Your task to perform on an android device: Open notification settings Image 0: 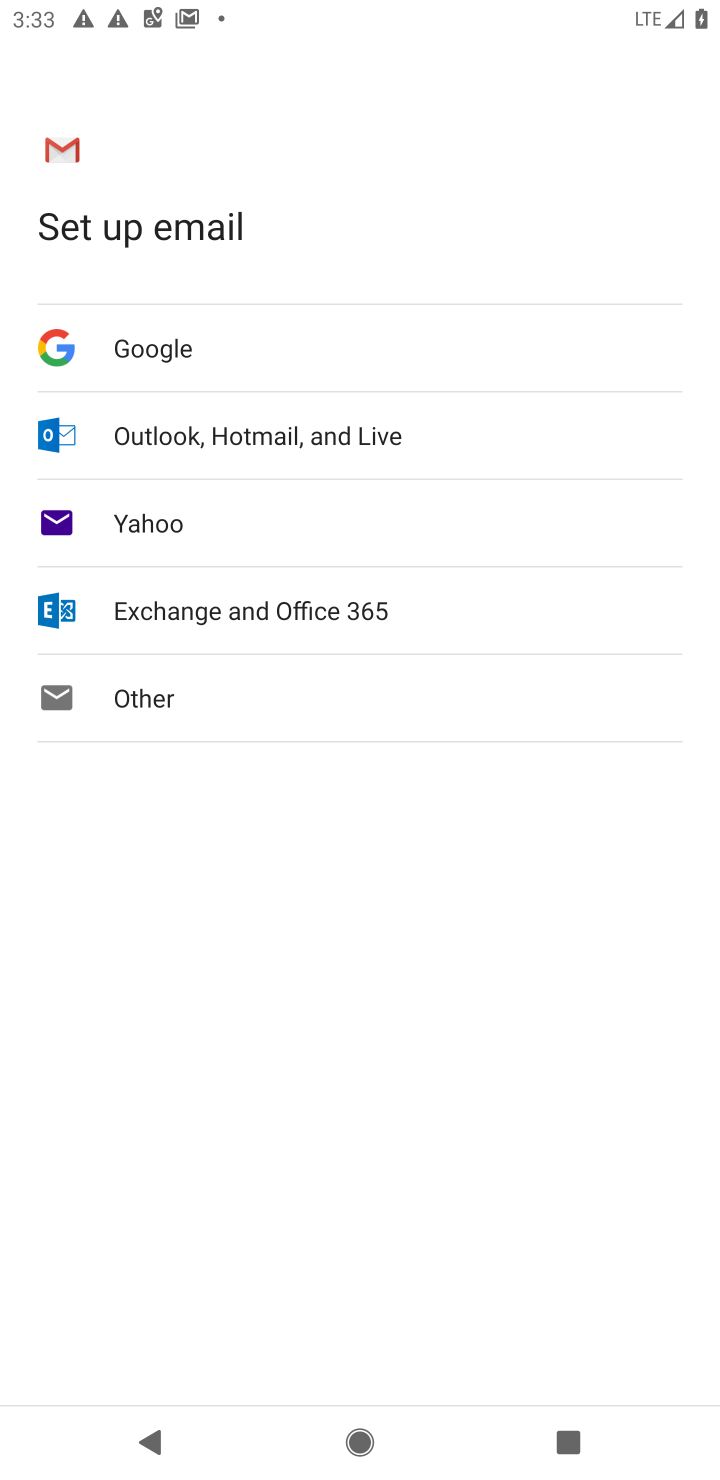
Step 0: press home button
Your task to perform on an android device: Open notification settings Image 1: 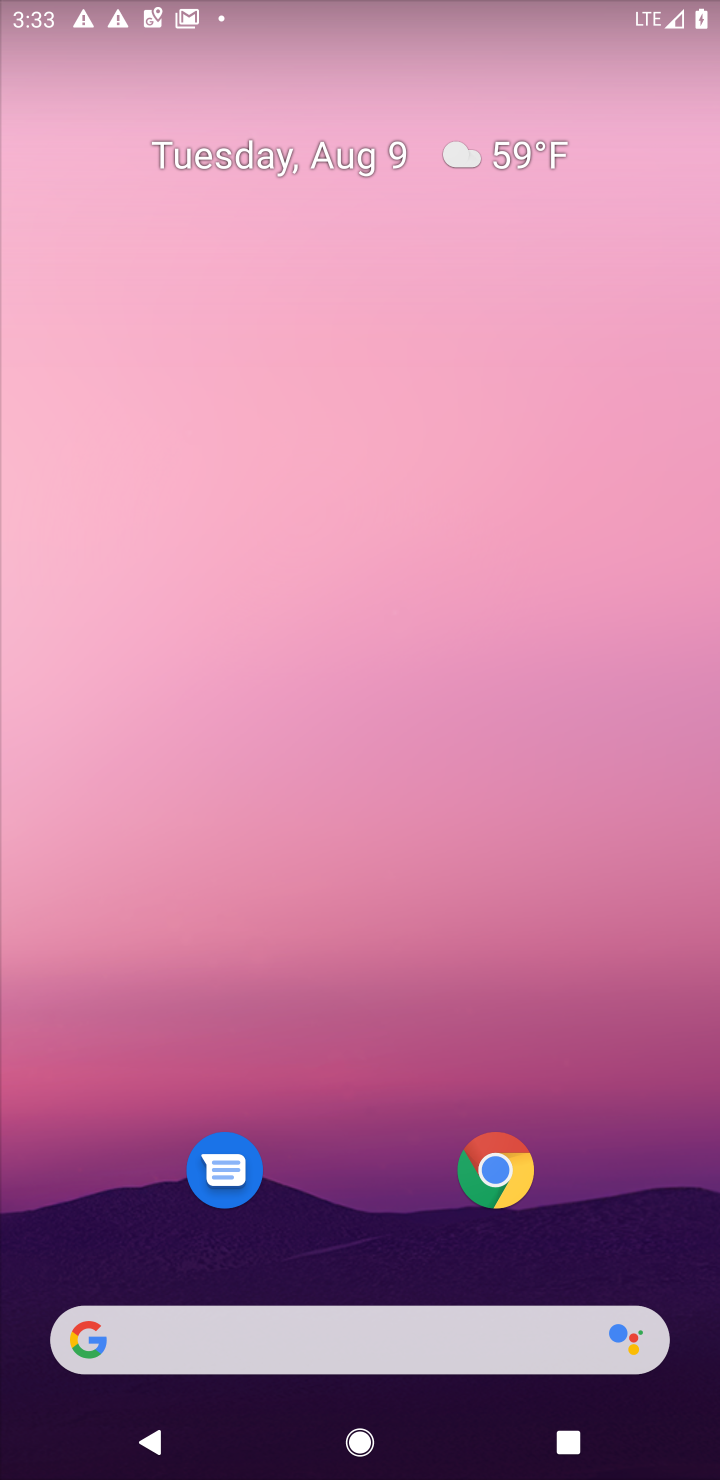
Step 1: drag from (341, 1075) to (293, 1)
Your task to perform on an android device: Open notification settings Image 2: 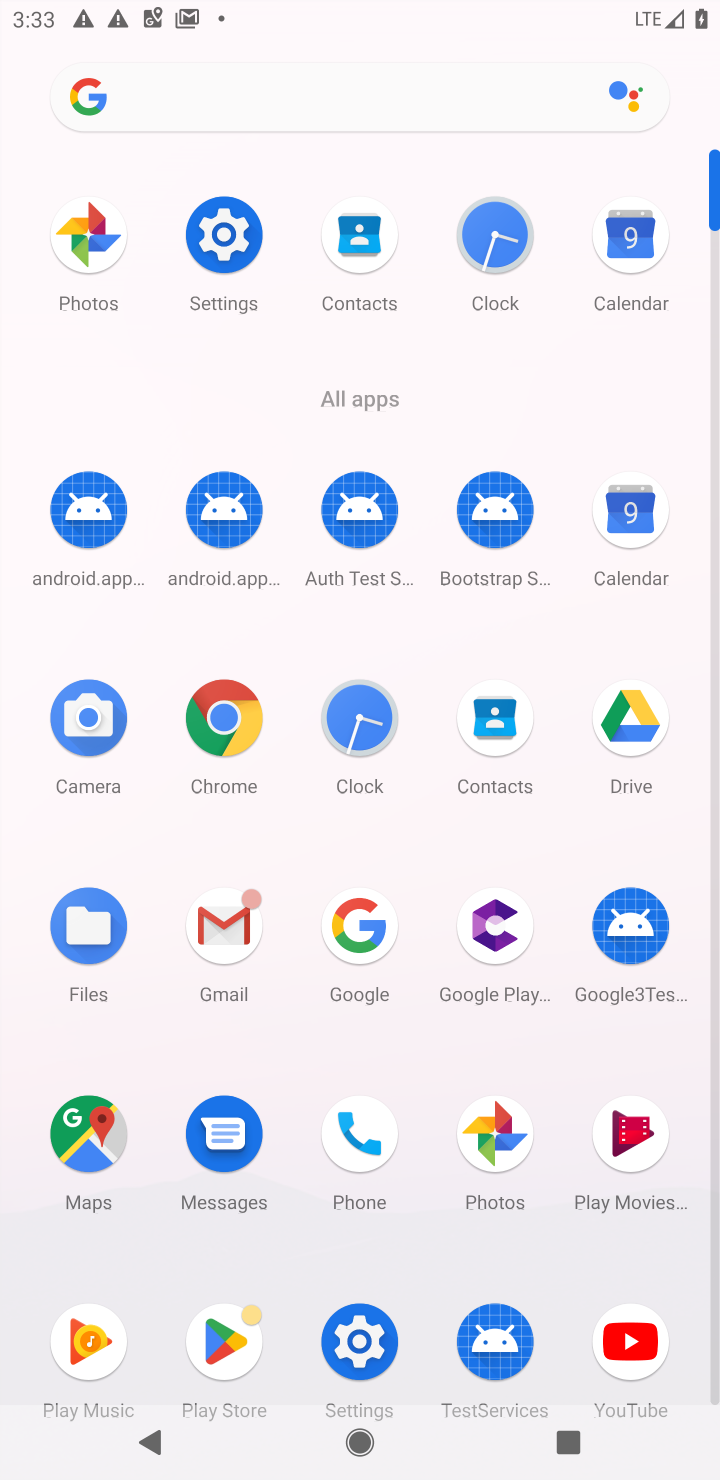
Step 2: click (213, 256)
Your task to perform on an android device: Open notification settings Image 3: 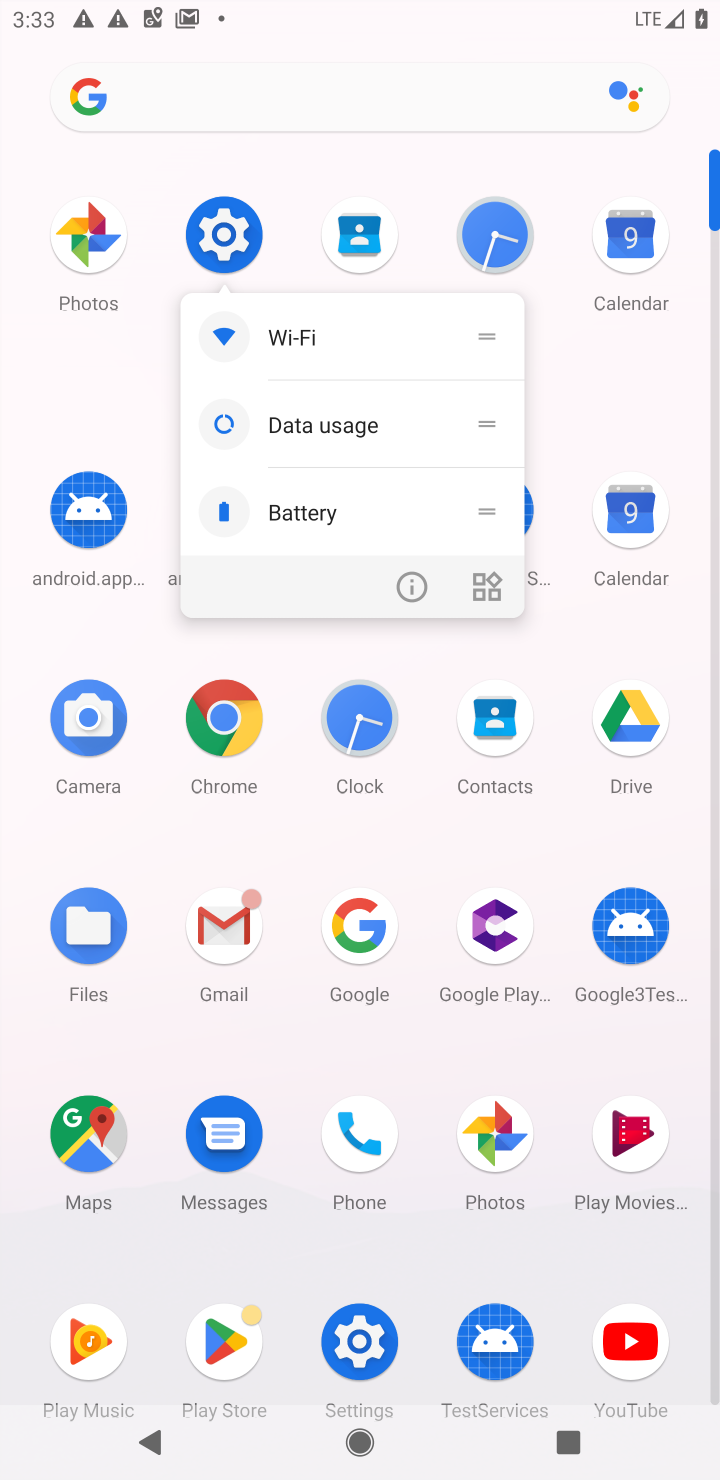
Step 3: click (213, 256)
Your task to perform on an android device: Open notification settings Image 4: 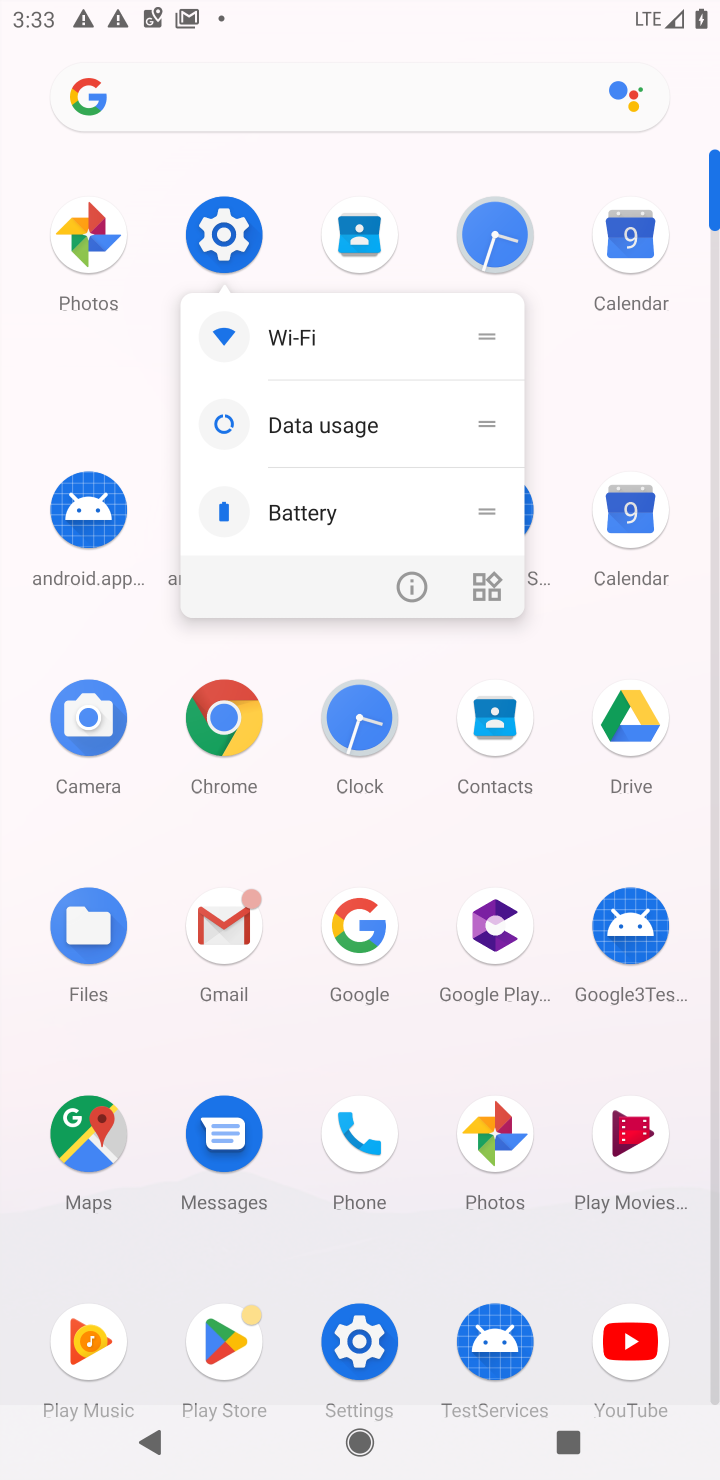
Step 4: click (213, 256)
Your task to perform on an android device: Open notification settings Image 5: 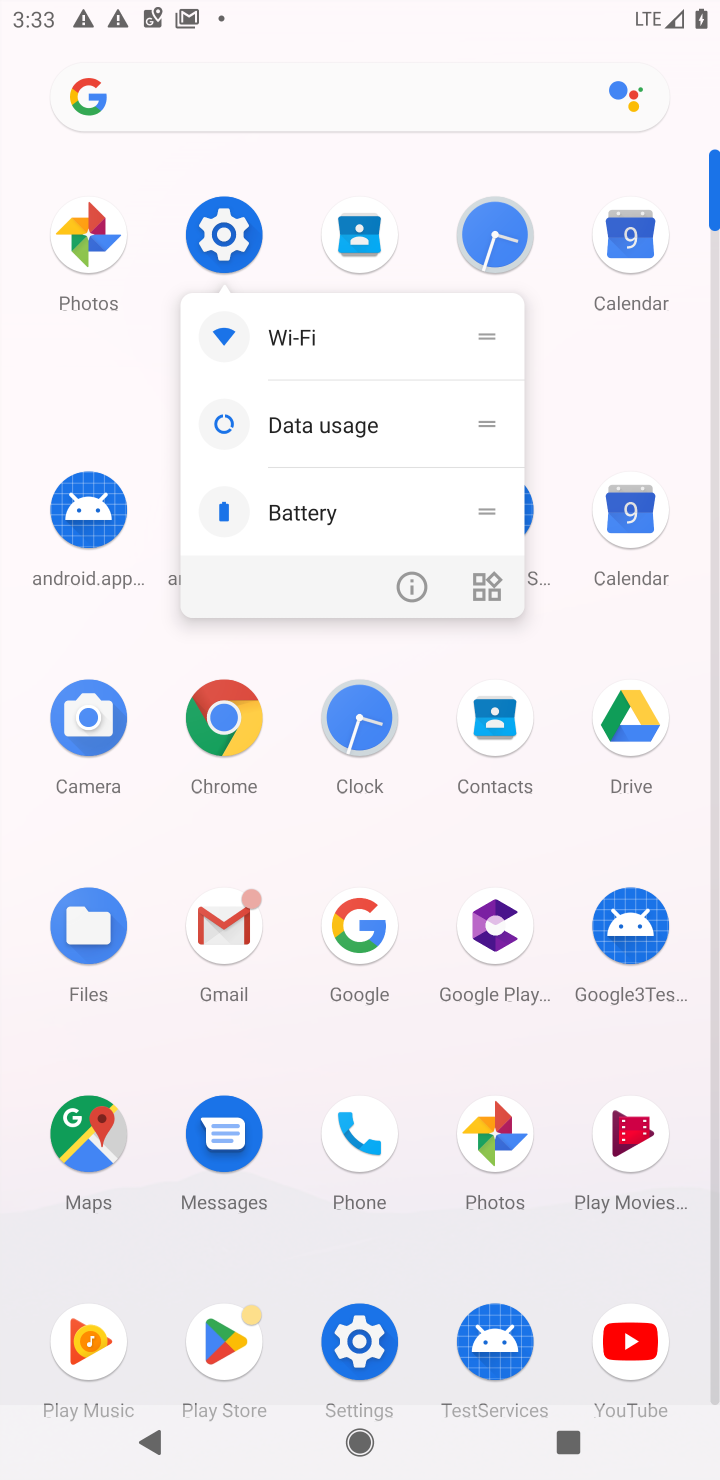
Step 5: click (221, 243)
Your task to perform on an android device: Open notification settings Image 6: 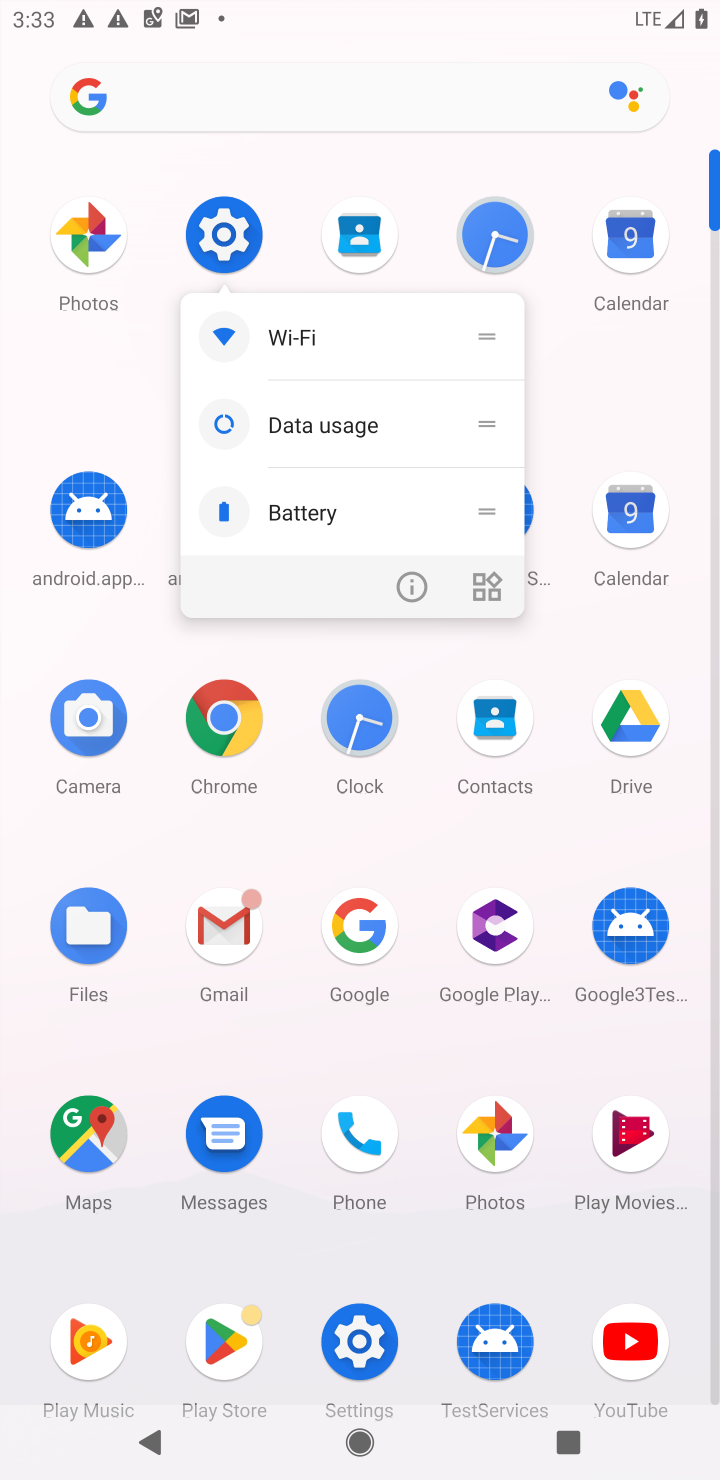
Step 6: click (225, 252)
Your task to perform on an android device: Open notification settings Image 7: 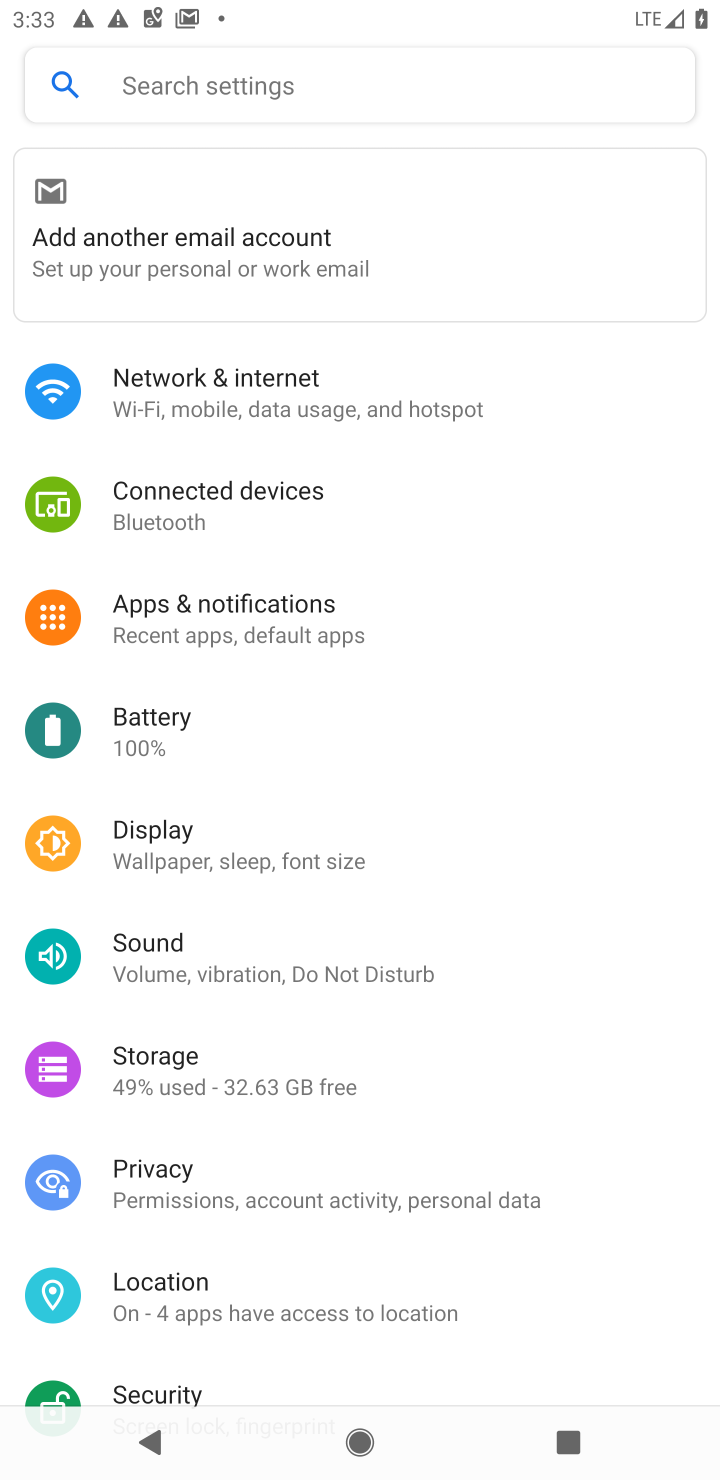
Step 7: click (242, 626)
Your task to perform on an android device: Open notification settings Image 8: 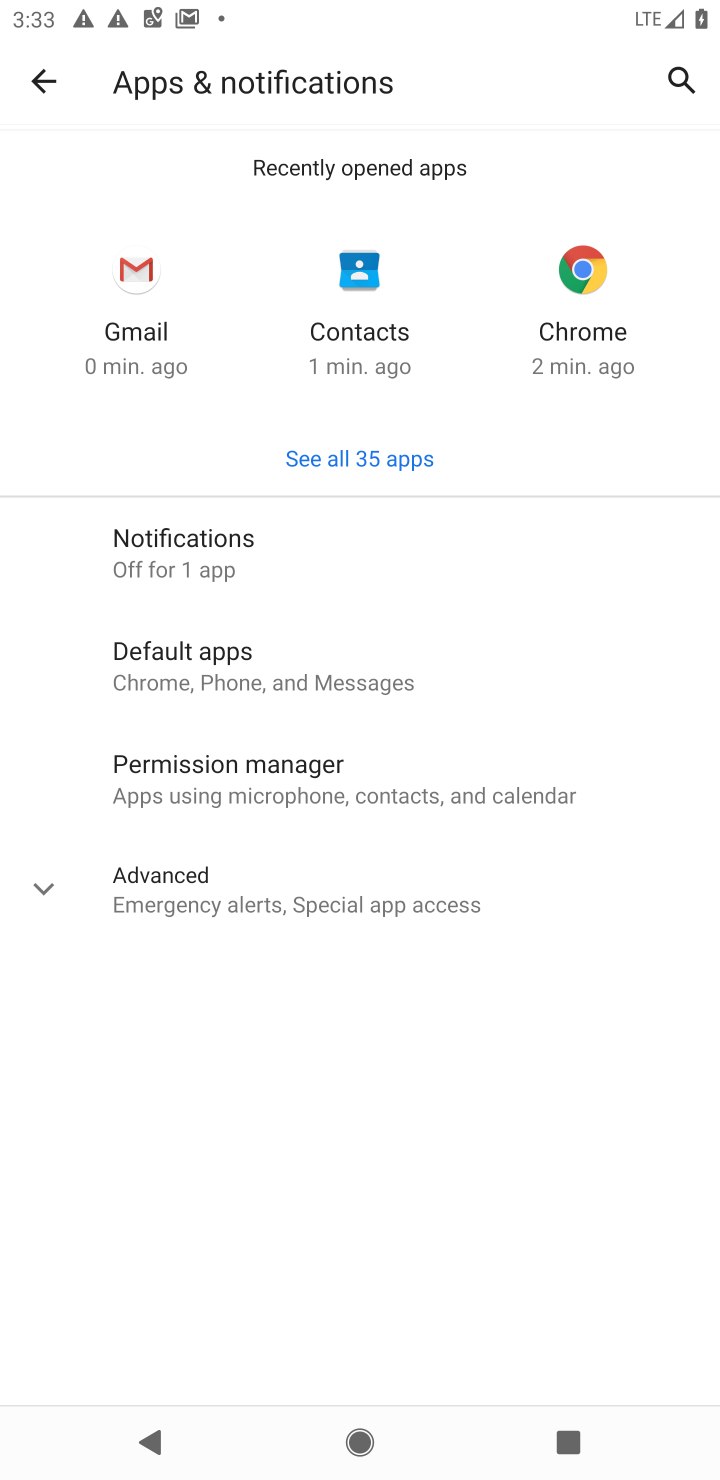
Step 8: click (193, 545)
Your task to perform on an android device: Open notification settings Image 9: 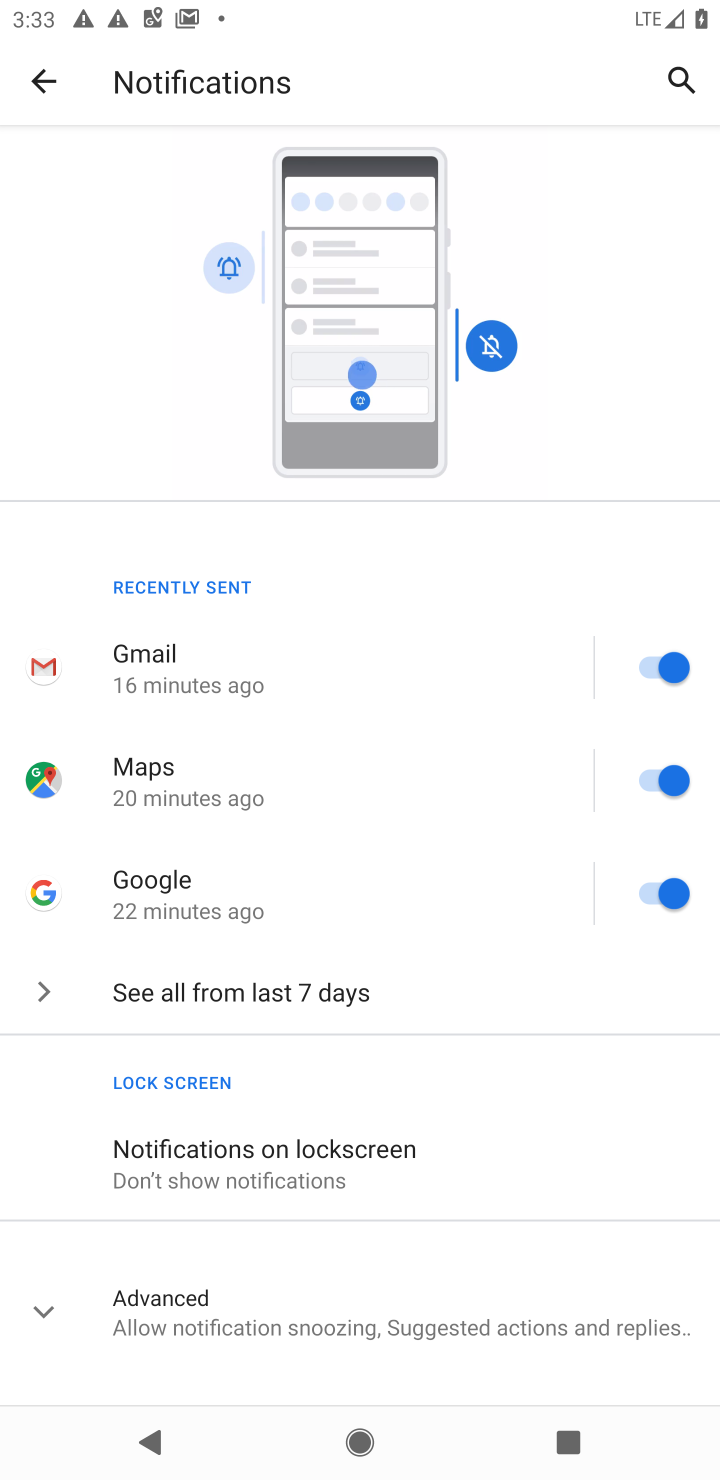
Step 9: task complete